Your task to perform on an android device: Open Google Chrome Image 0: 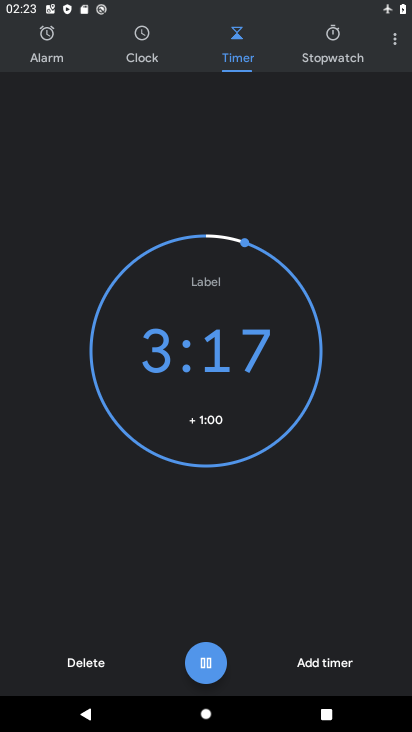
Step 0: press home button
Your task to perform on an android device: Open Google Chrome Image 1: 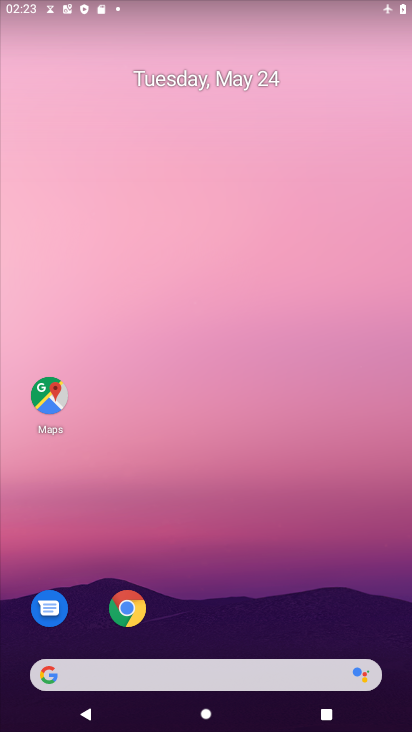
Step 1: click (142, 609)
Your task to perform on an android device: Open Google Chrome Image 2: 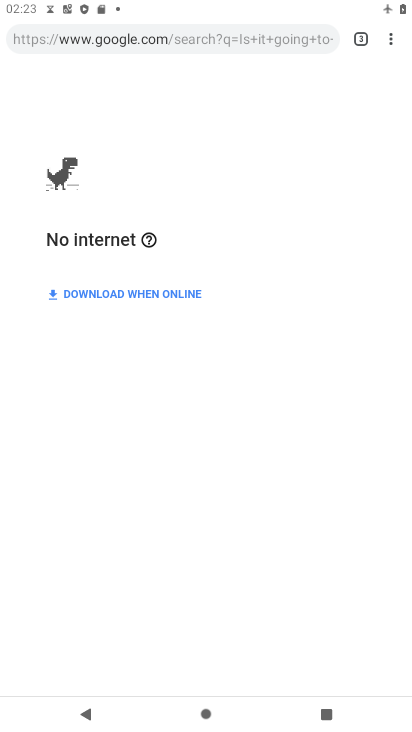
Step 2: task complete